Your task to perform on an android device: Open the Play Movies app and select the watchlist tab. Image 0: 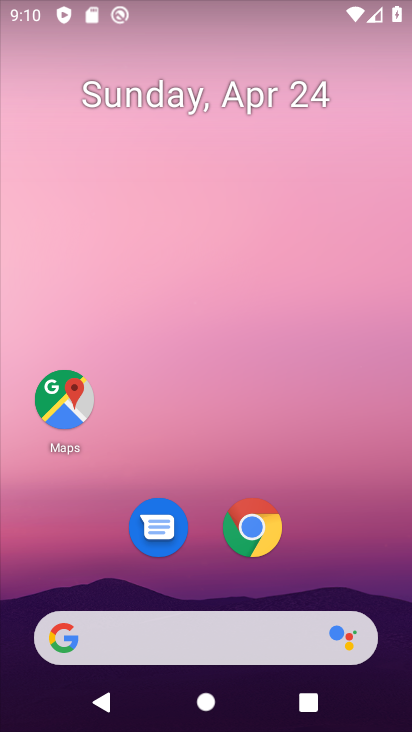
Step 0: drag from (395, 611) to (231, 38)
Your task to perform on an android device: Open the Play Movies app and select the watchlist tab. Image 1: 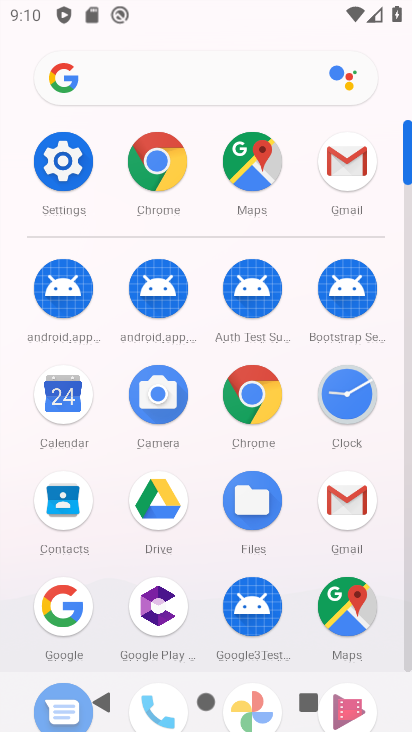
Step 1: click (409, 669)
Your task to perform on an android device: Open the Play Movies app and select the watchlist tab. Image 2: 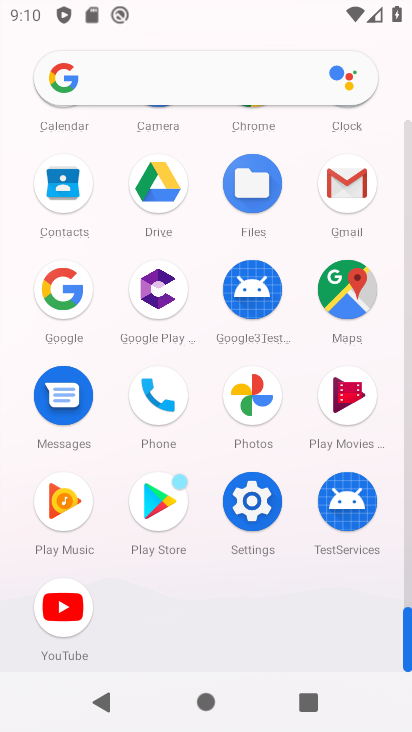
Step 2: click (156, 396)
Your task to perform on an android device: Open the Play Movies app and select the watchlist tab. Image 3: 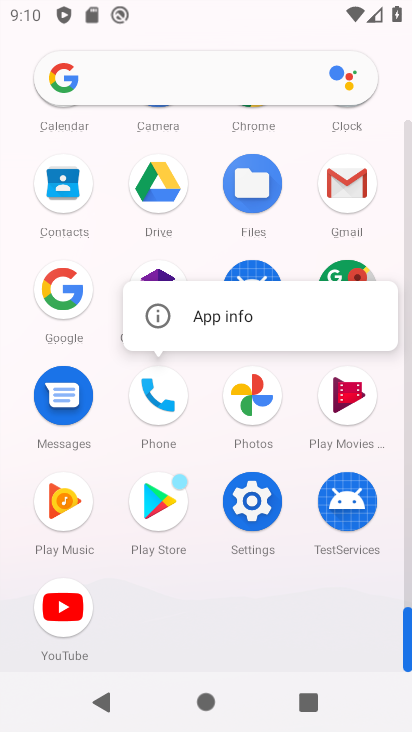
Step 3: click (278, 607)
Your task to perform on an android device: Open the Play Movies app and select the watchlist tab. Image 4: 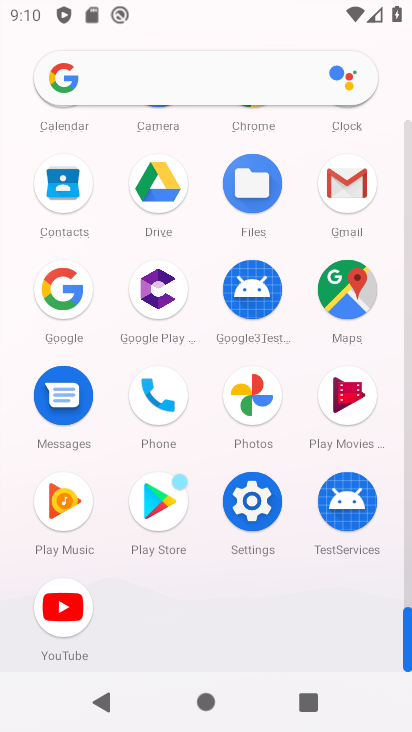
Step 4: click (338, 409)
Your task to perform on an android device: Open the Play Movies app and select the watchlist tab. Image 5: 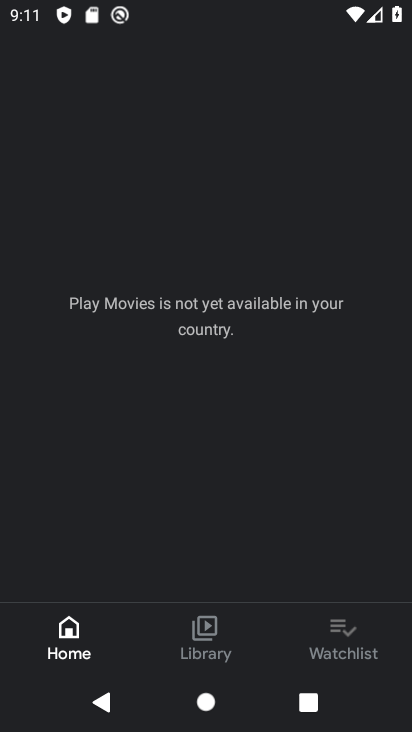
Step 5: click (335, 634)
Your task to perform on an android device: Open the Play Movies app and select the watchlist tab. Image 6: 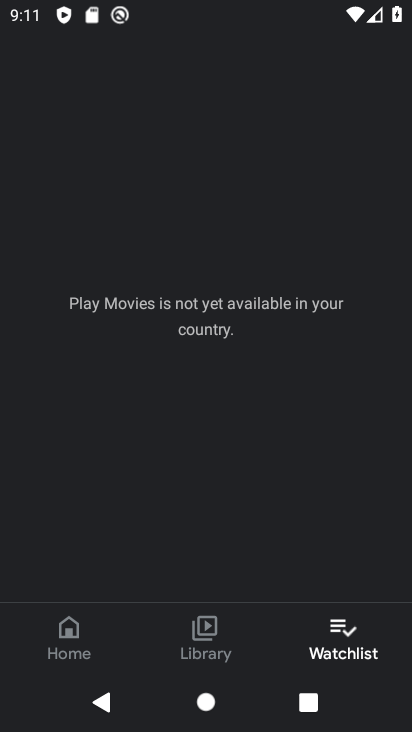
Step 6: task complete